Your task to perform on an android device: Go to display settings Image 0: 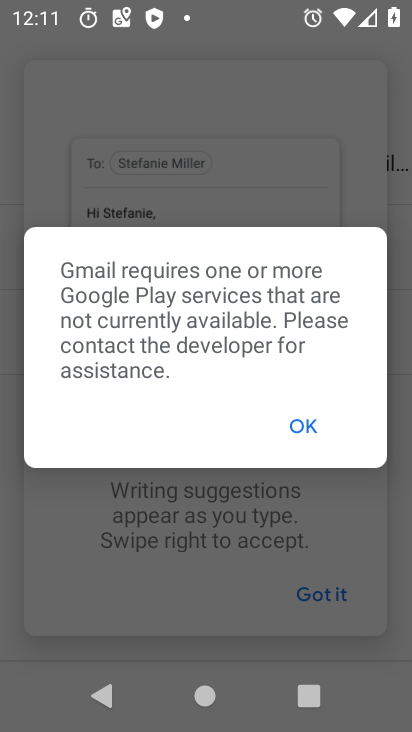
Step 0: press home button
Your task to perform on an android device: Go to display settings Image 1: 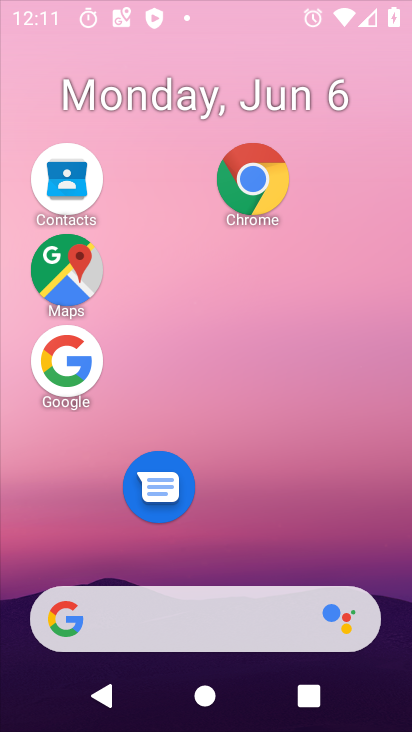
Step 1: drag from (224, 658) to (272, 154)
Your task to perform on an android device: Go to display settings Image 2: 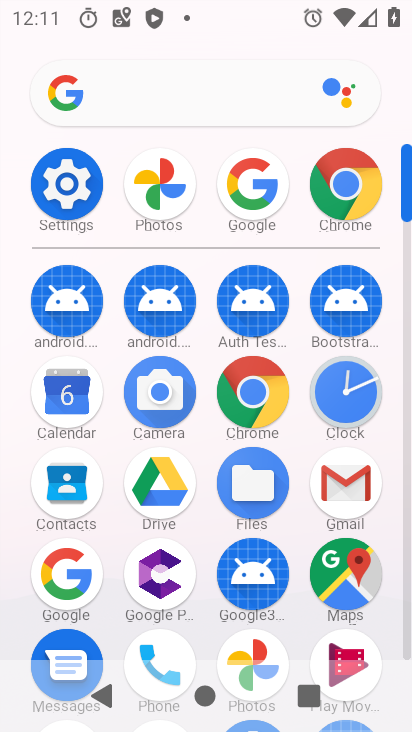
Step 2: click (75, 193)
Your task to perform on an android device: Go to display settings Image 3: 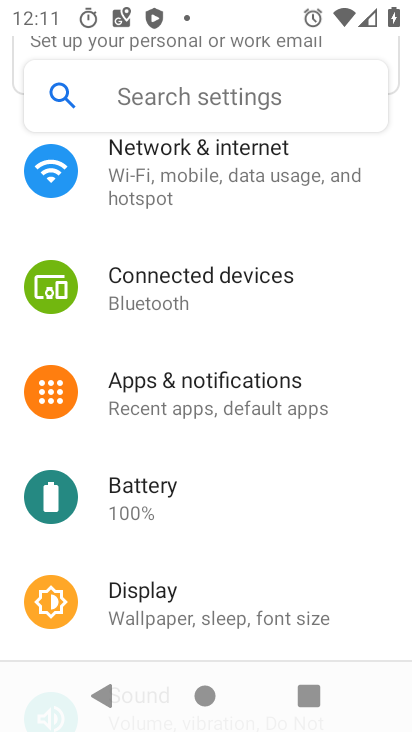
Step 3: click (251, 605)
Your task to perform on an android device: Go to display settings Image 4: 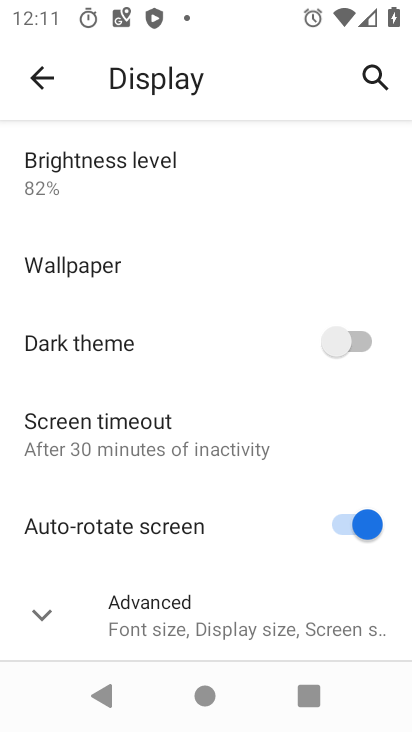
Step 4: click (225, 614)
Your task to perform on an android device: Go to display settings Image 5: 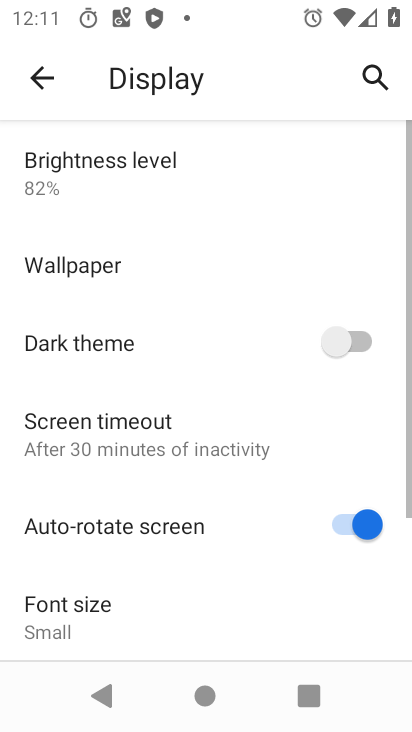
Step 5: task complete